Your task to perform on an android device: toggle notification dots Image 0: 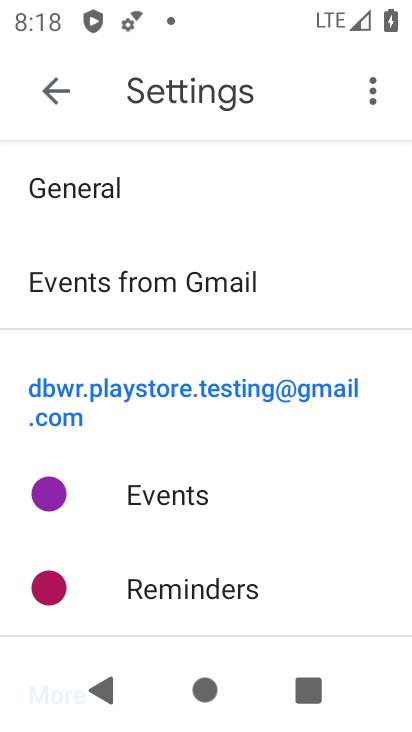
Step 0: press home button
Your task to perform on an android device: toggle notification dots Image 1: 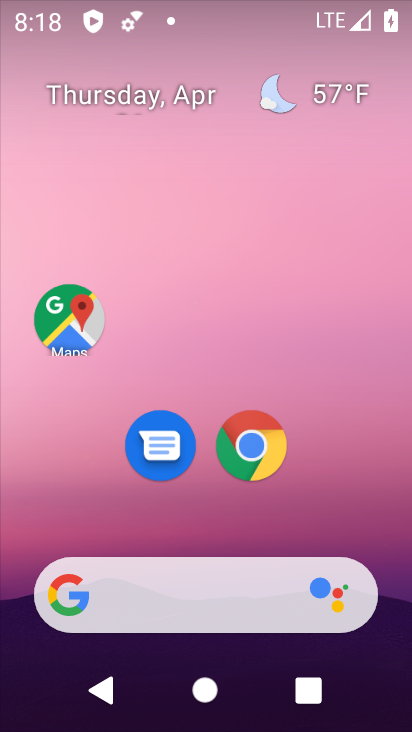
Step 1: drag from (342, 500) to (242, 0)
Your task to perform on an android device: toggle notification dots Image 2: 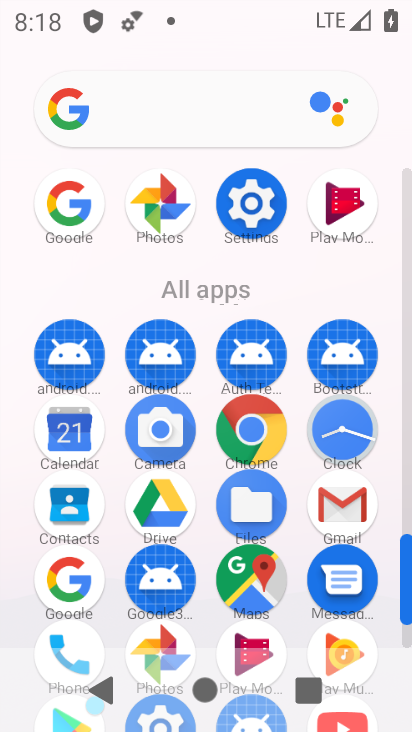
Step 2: click (244, 204)
Your task to perform on an android device: toggle notification dots Image 3: 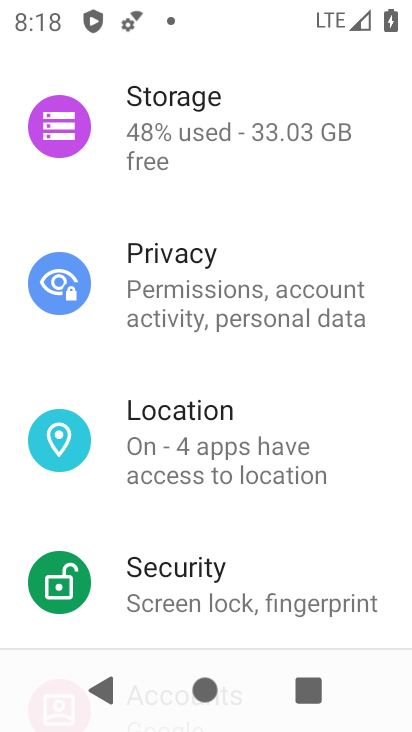
Step 3: drag from (360, 152) to (380, 436)
Your task to perform on an android device: toggle notification dots Image 4: 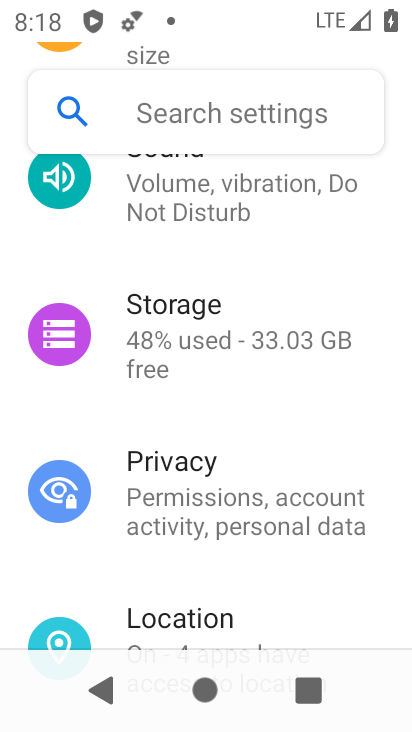
Step 4: drag from (310, 283) to (338, 616)
Your task to perform on an android device: toggle notification dots Image 5: 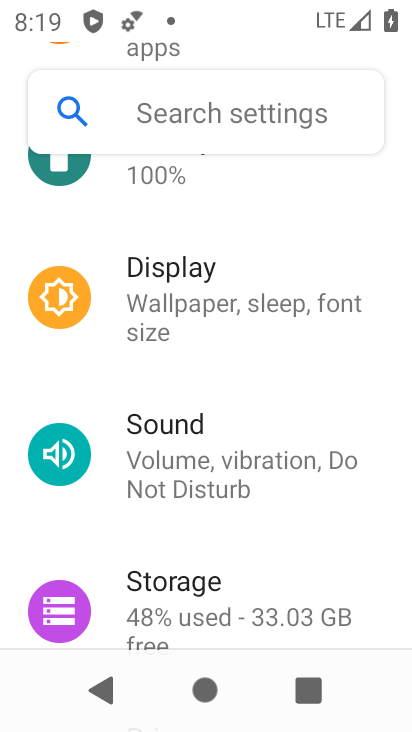
Step 5: drag from (276, 249) to (304, 631)
Your task to perform on an android device: toggle notification dots Image 6: 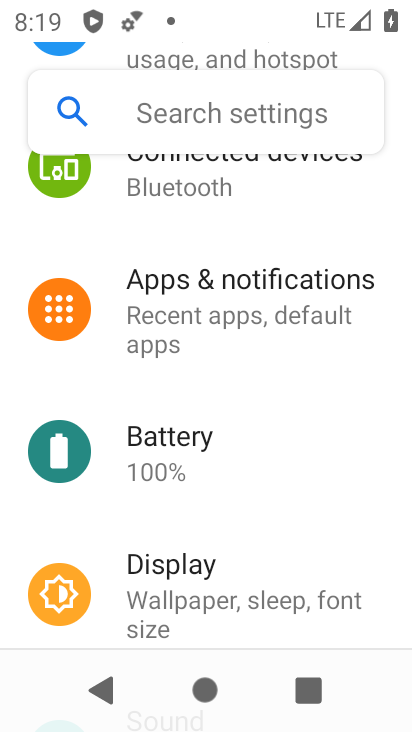
Step 6: click (230, 298)
Your task to perform on an android device: toggle notification dots Image 7: 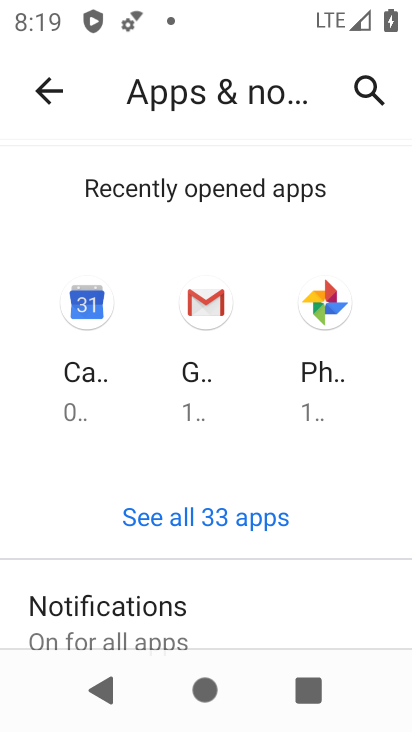
Step 7: drag from (229, 580) to (212, 185)
Your task to perform on an android device: toggle notification dots Image 8: 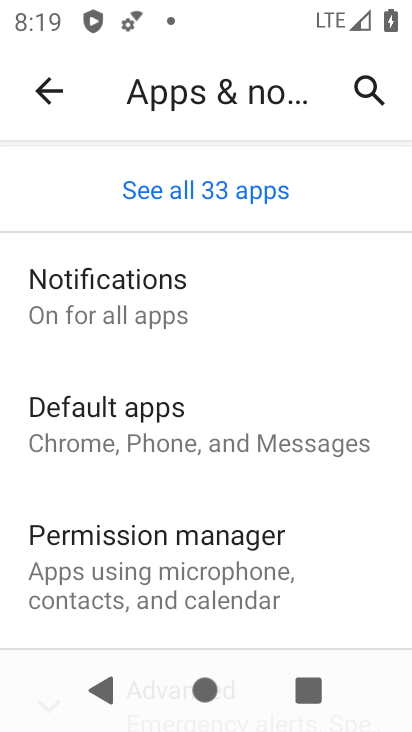
Step 8: click (99, 283)
Your task to perform on an android device: toggle notification dots Image 9: 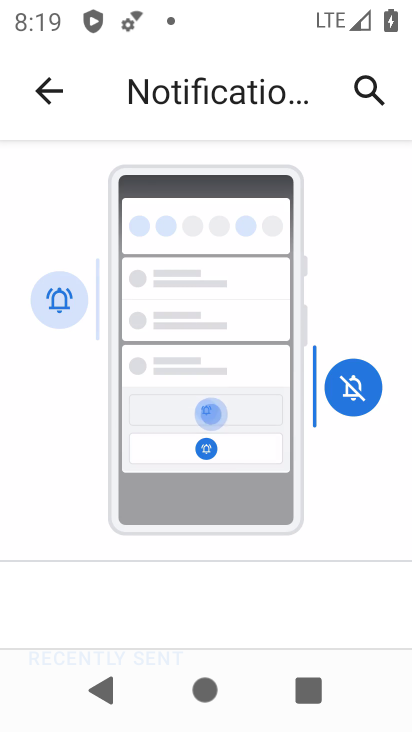
Step 9: drag from (221, 531) to (189, 111)
Your task to perform on an android device: toggle notification dots Image 10: 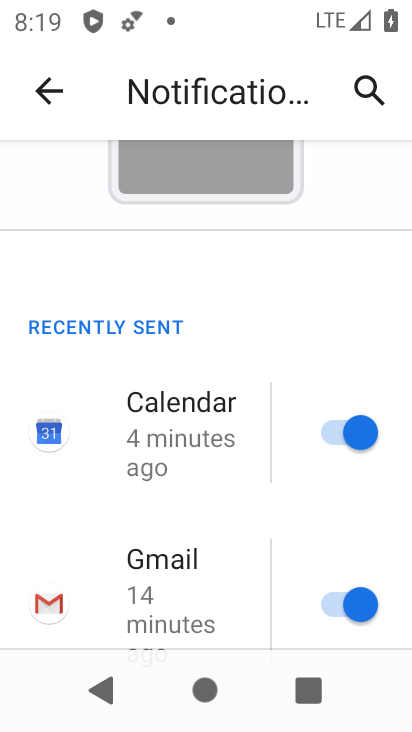
Step 10: drag from (144, 489) to (142, 7)
Your task to perform on an android device: toggle notification dots Image 11: 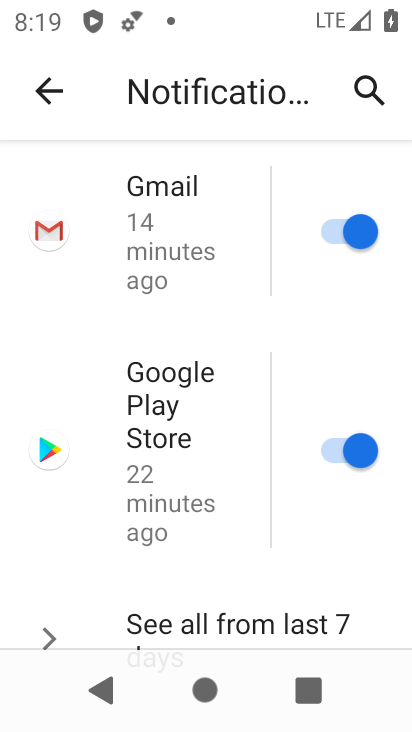
Step 11: drag from (143, 548) to (161, 127)
Your task to perform on an android device: toggle notification dots Image 12: 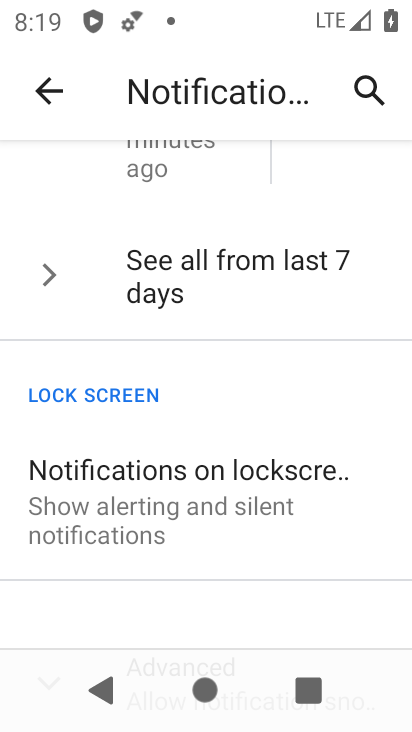
Step 12: drag from (152, 459) to (156, 162)
Your task to perform on an android device: toggle notification dots Image 13: 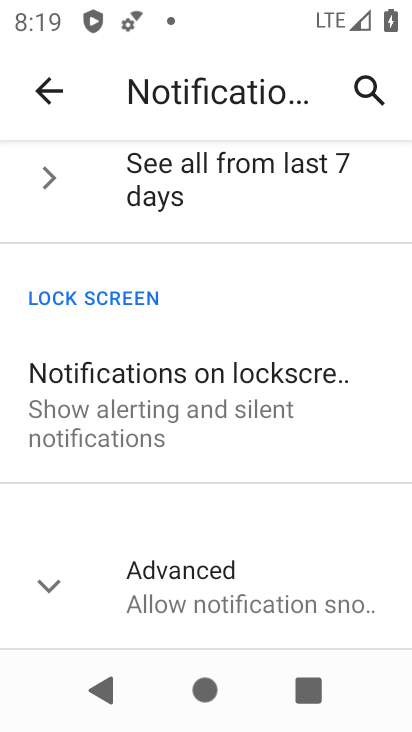
Step 13: click (39, 596)
Your task to perform on an android device: toggle notification dots Image 14: 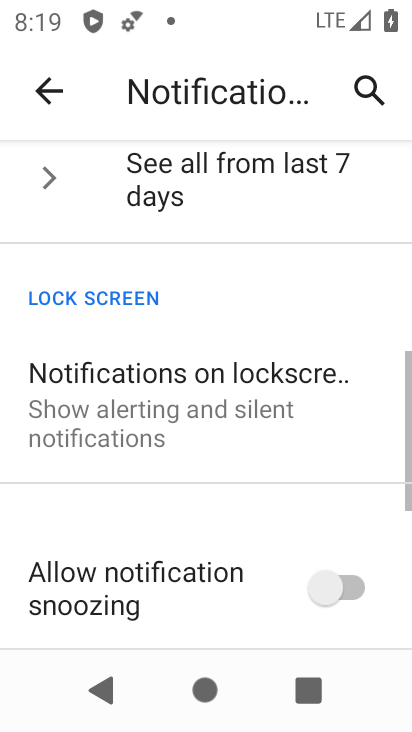
Step 14: drag from (108, 581) to (118, 213)
Your task to perform on an android device: toggle notification dots Image 15: 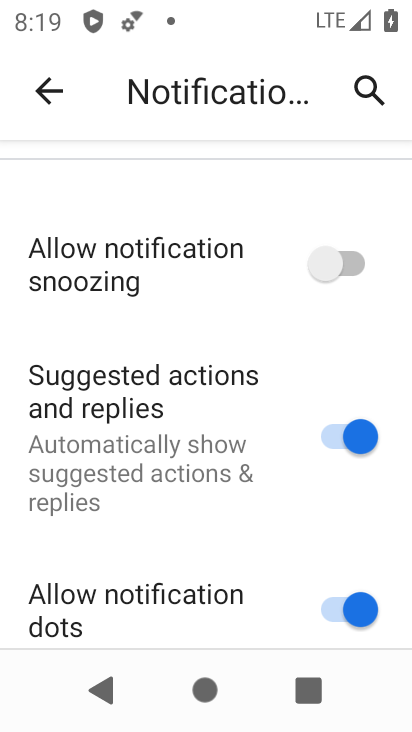
Step 15: drag from (122, 478) to (114, 247)
Your task to perform on an android device: toggle notification dots Image 16: 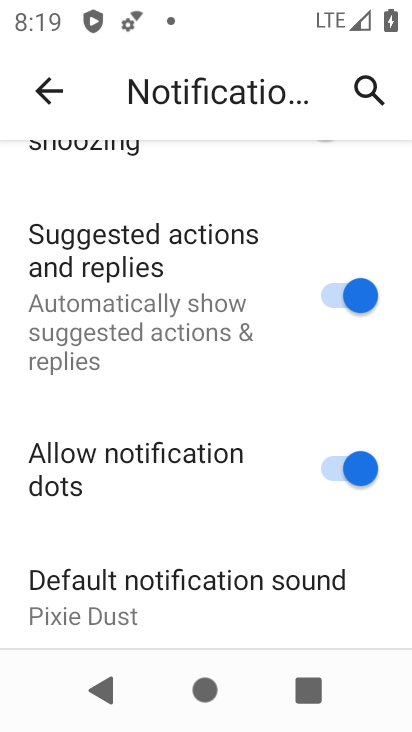
Step 16: click (362, 460)
Your task to perform on an android device: toggle notification dots Image 17: 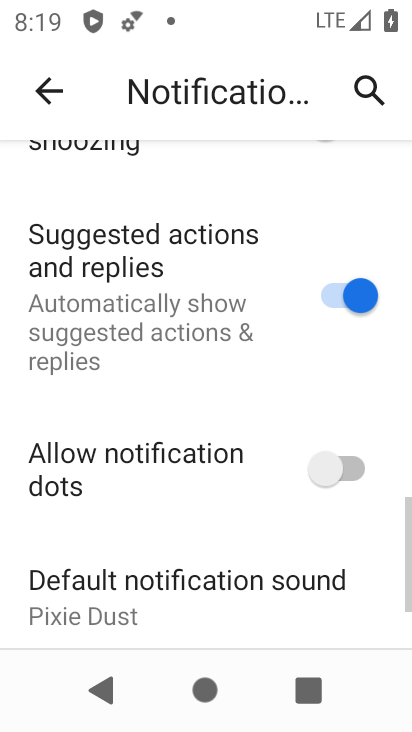
Step 17: task complete